Your task to perform on an android device: delete browsing data in the chrome app Image 0: 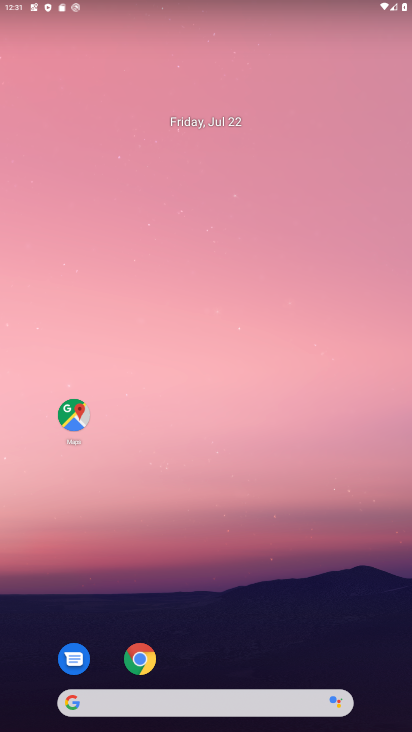
Step 0: click (137, 653)
Your task to perform on an android device: delete browsing data in the chrome app Image 1: 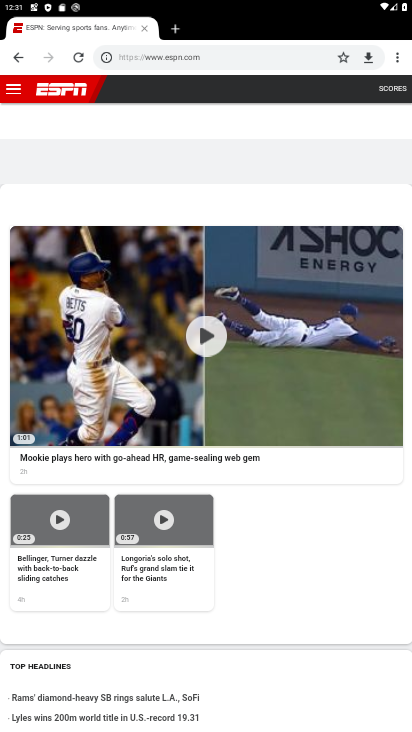
Step 1: click (397, 63)
Your task to perform on an android device: delete browsing data in the chrome app Image 2: 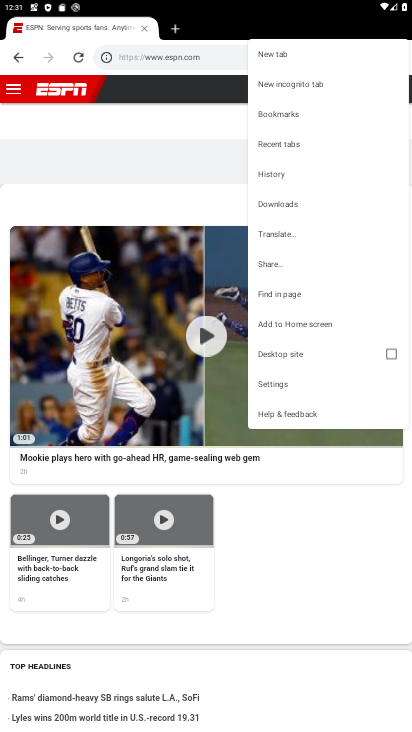
Step 2: click (280, 165)
Your task to perform on an android device: delete browsing data in the chrome app Image 3: 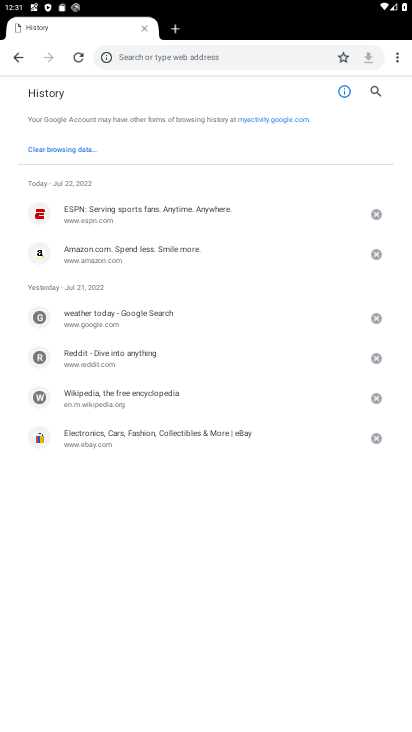
Step 3: click (66, 149)
Your task to perform on an android device: delete browsing data in the chrome app Image 4: 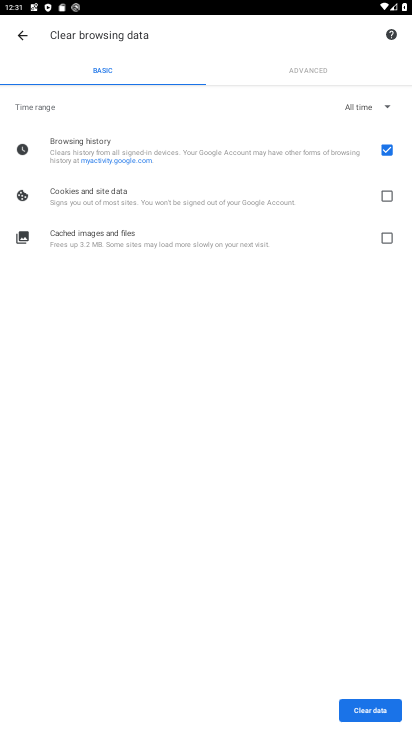
Step 4: click (360, 711)
Your task to perform on an android device: delete browsing data in the chrome app Image 5: 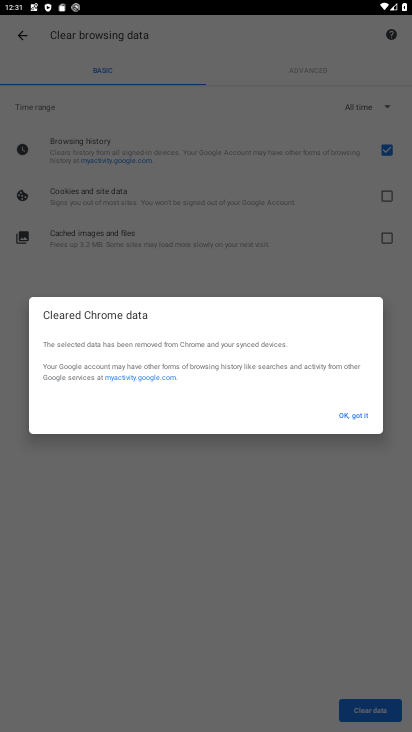
Step 5: click (360, 413)
Your task to perform on an android device: delete browsing data in the chrome app Image 6: 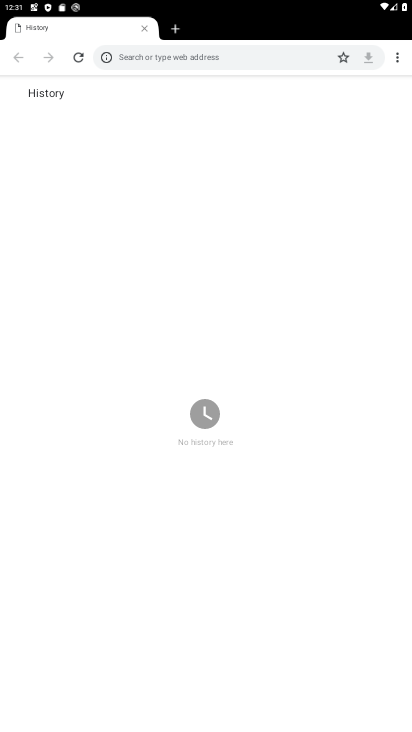
Step 6: task complete